Your task to perform on an android device: Search for alienware aurora on amazon, select the first entry, add it to the cart, then select checkout. Image 0: 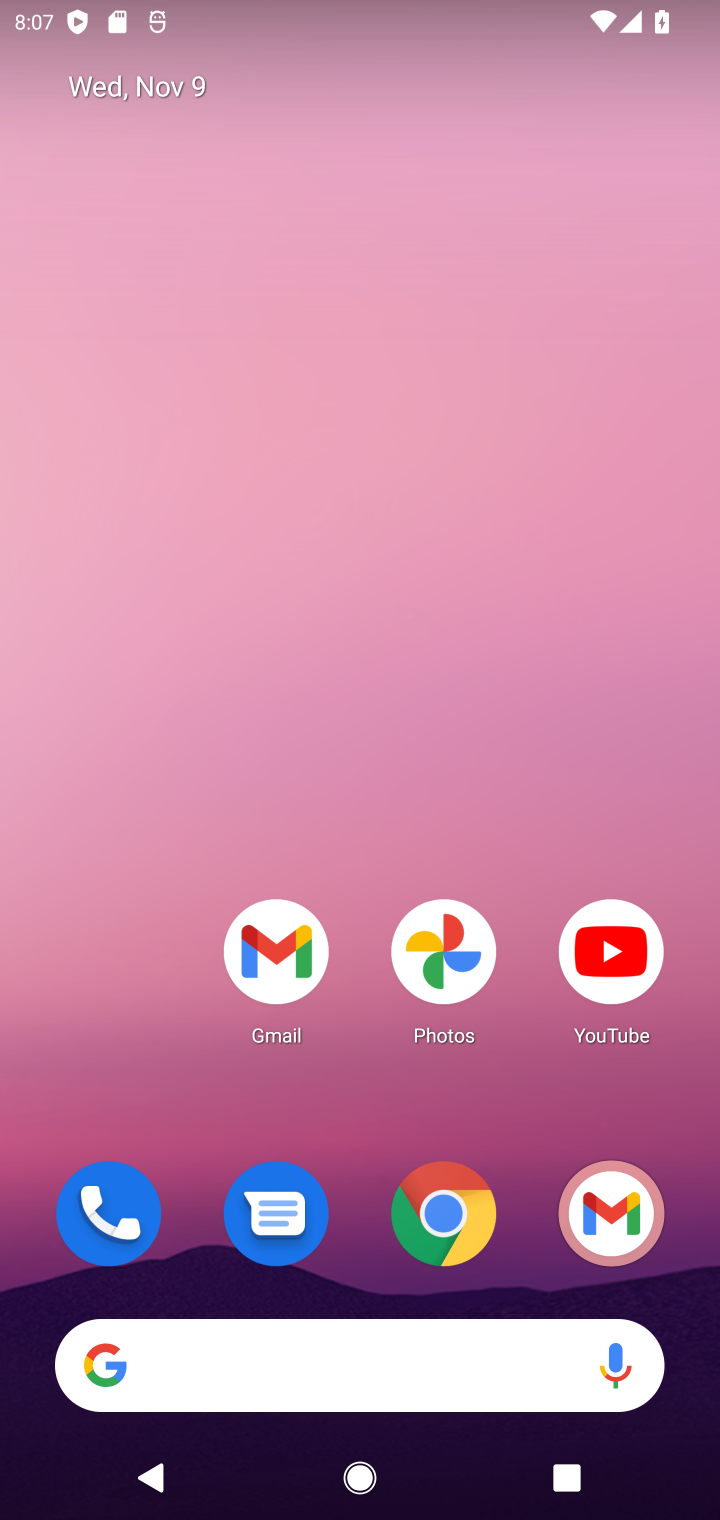
Step 0: click (462, 1218)
Your task to perform on an android device: Search for alienware aurora on amazon, select the first entry, add it to the cart, then select checkout. Image 1: 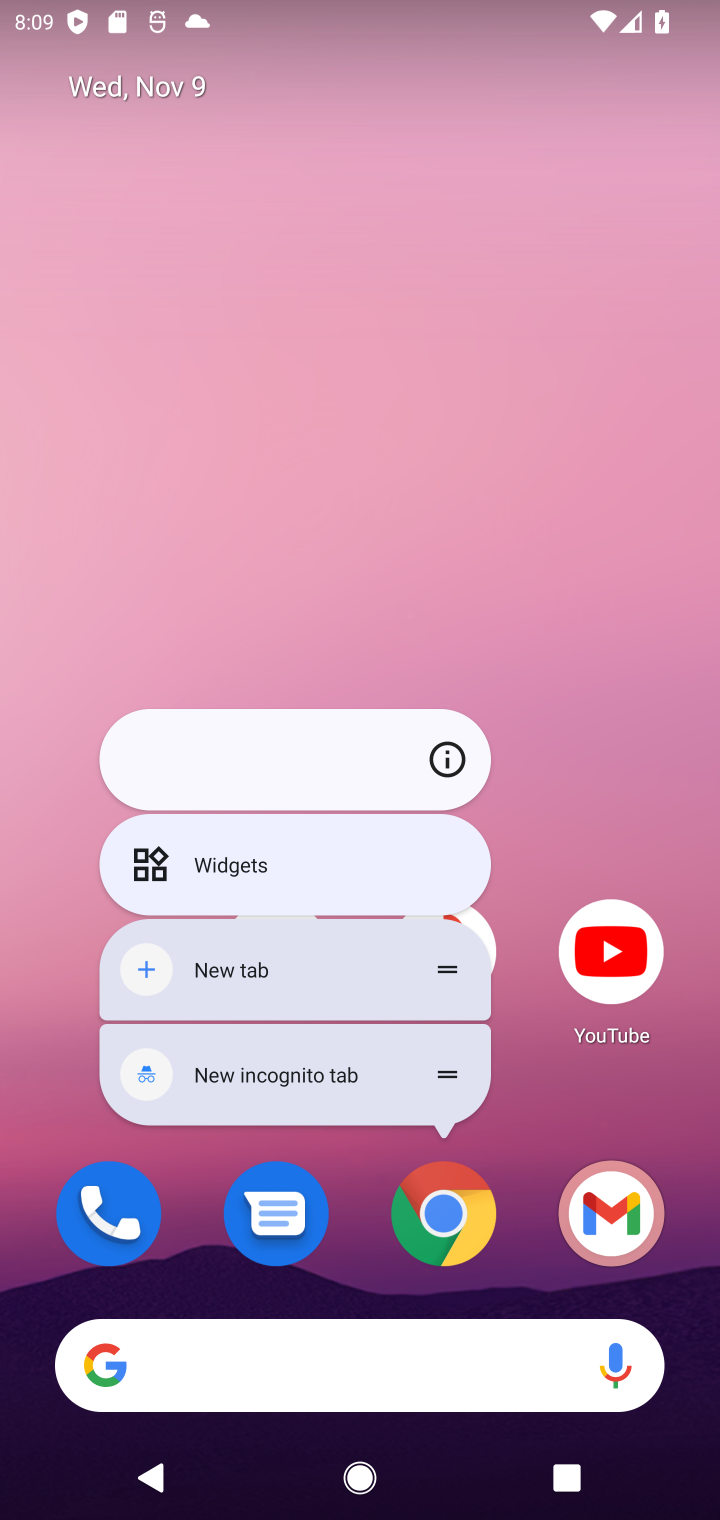
Step 1: click (455, 1258)
Your task to perform on an android device: Search for alienware aurora on amazon, select the first entry, add it to the cart, then select checkout. Image 2: 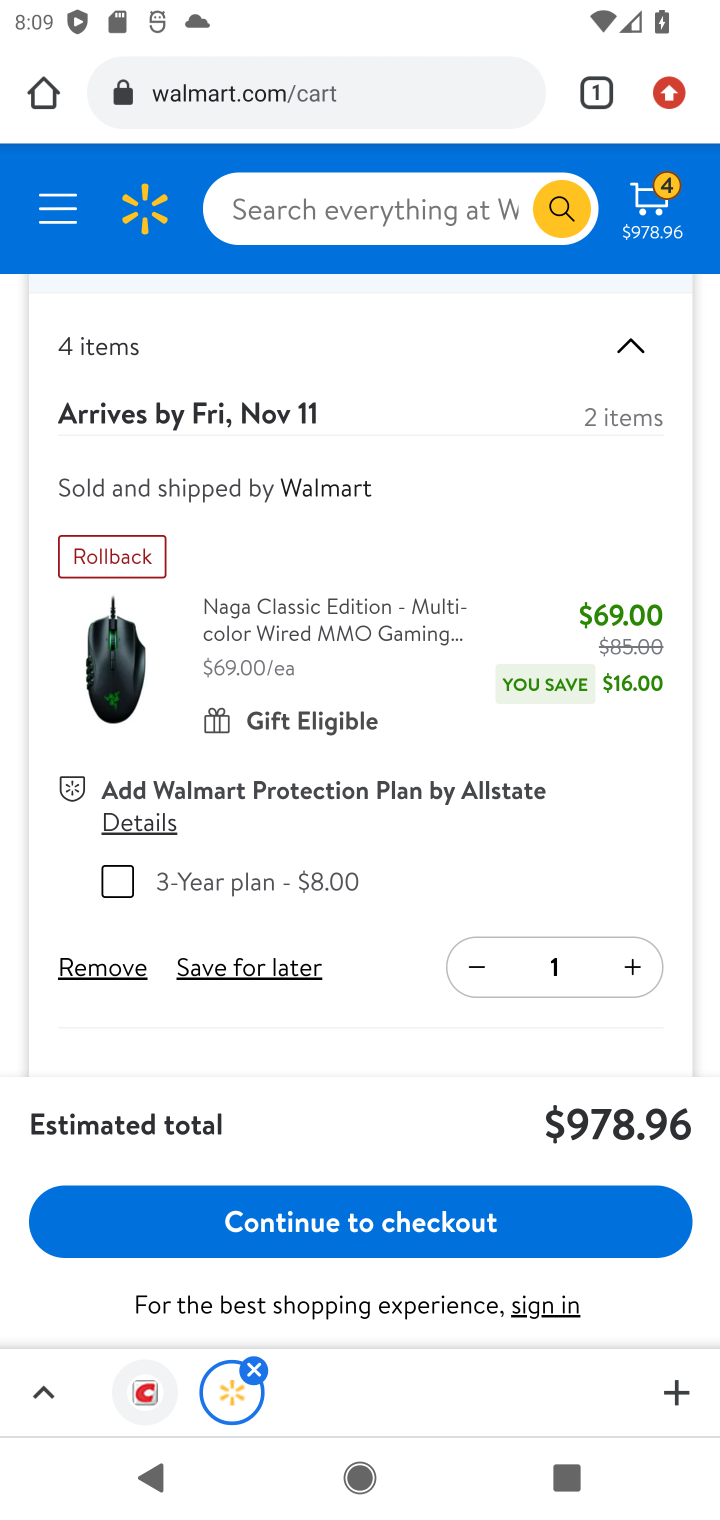
Step 2: click (276, 86)
Your task to perform on an android device: Search for alienware aurora on amazon, select the first entry, add it to the cart, then select checkout. Image 3: 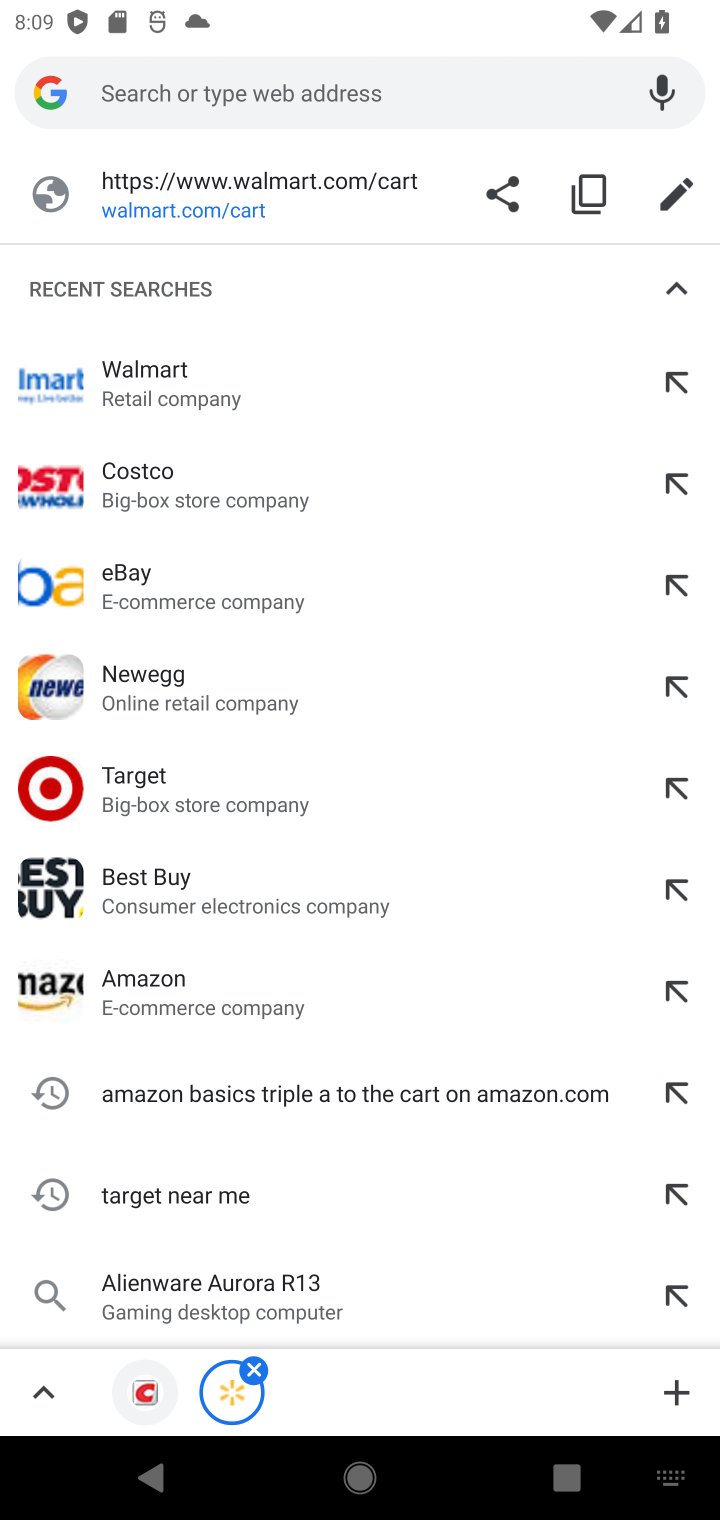
Step 3: click (176, 989)
Your task to perform on an android device: Search for alienware aurora on amazon, select the first entry, add it to the cart, then select checkout. Image 4: 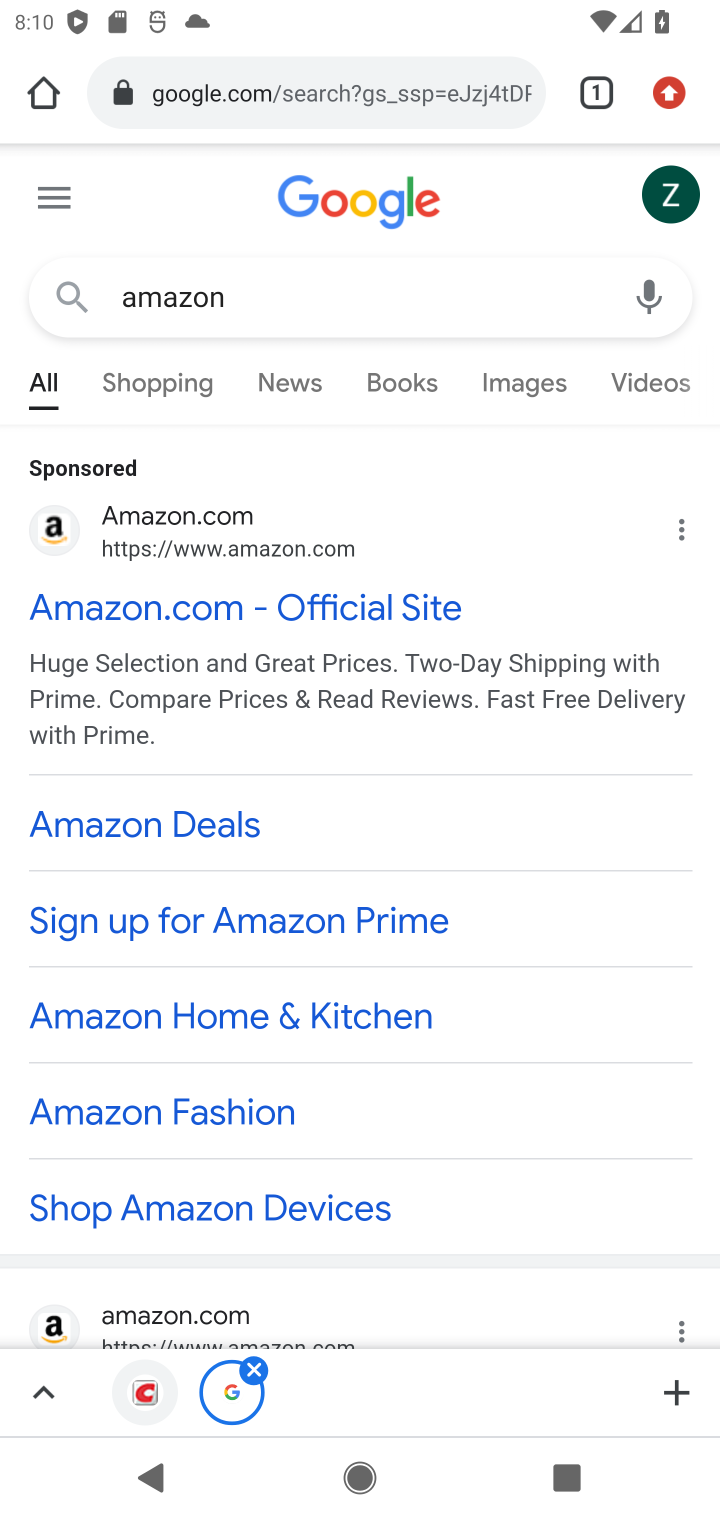
Step 4: click (110, 605)
Your task to perform on an android device: Search for alienware aurora on amazon, select the first entry, add it to the cart, then select checkout. Image 5: 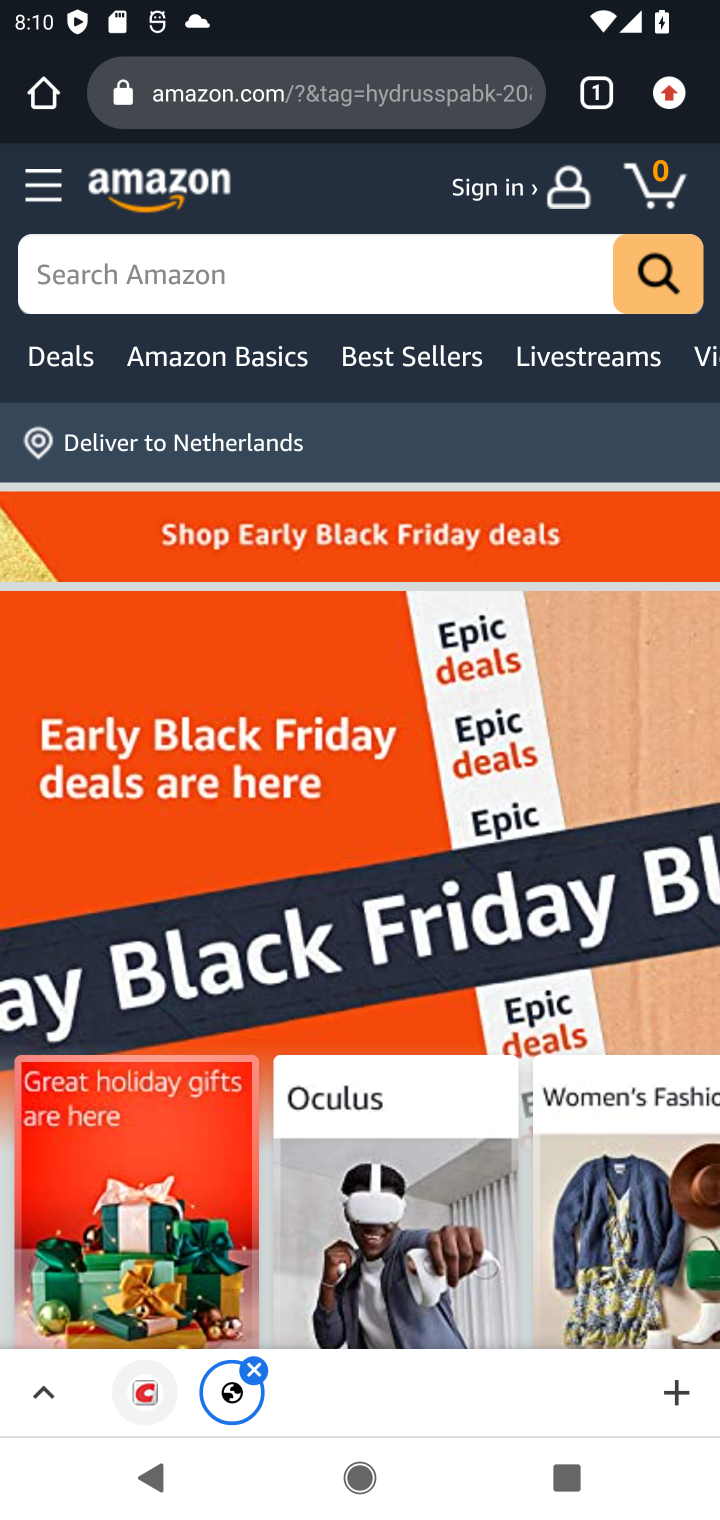
Step 5: click (153, 265)
Your task to perform on an android device: Search for alienware aurora on amazon, select the first entry, add it to the cart, then select checkout. Image 6: 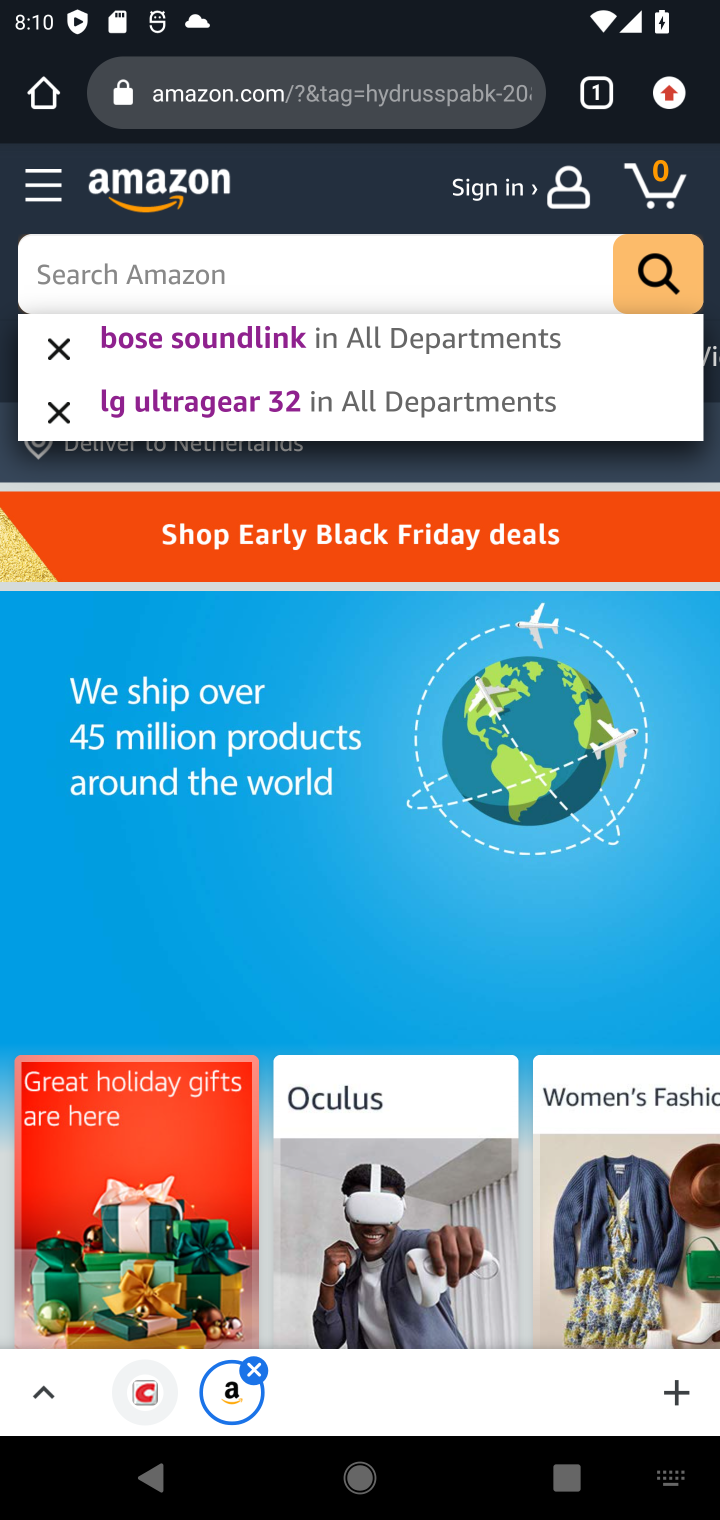
Step 6: type "alienware aurora"
Your task to perform on an android device: Search for alienware aurora on amazon, select the first entry, add it to the cart, then select checkout. Image 7: 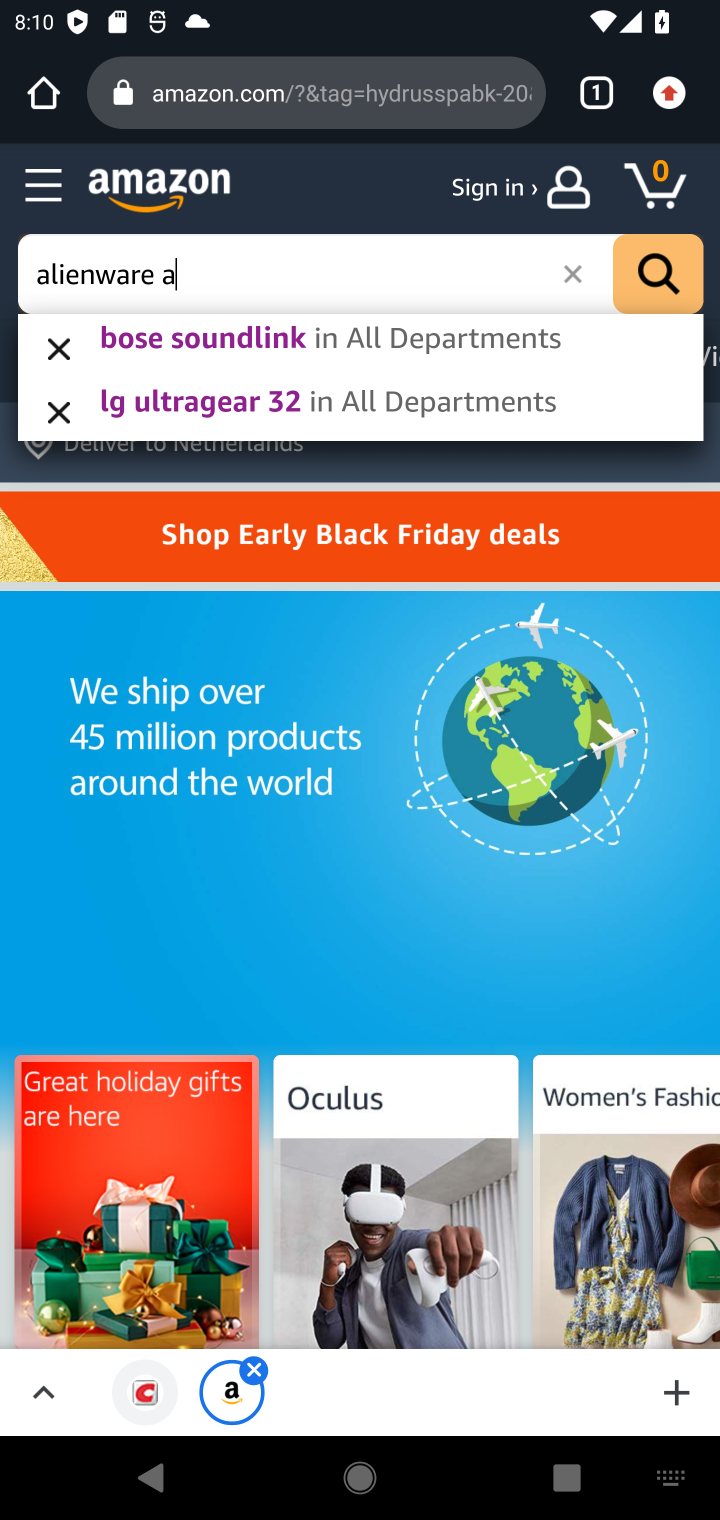
Step 7: type ""
Your task to perform on an android device: Search for alienware aurora on amazon, select the first entry, add it to the cart, then select checkout. Image 8: 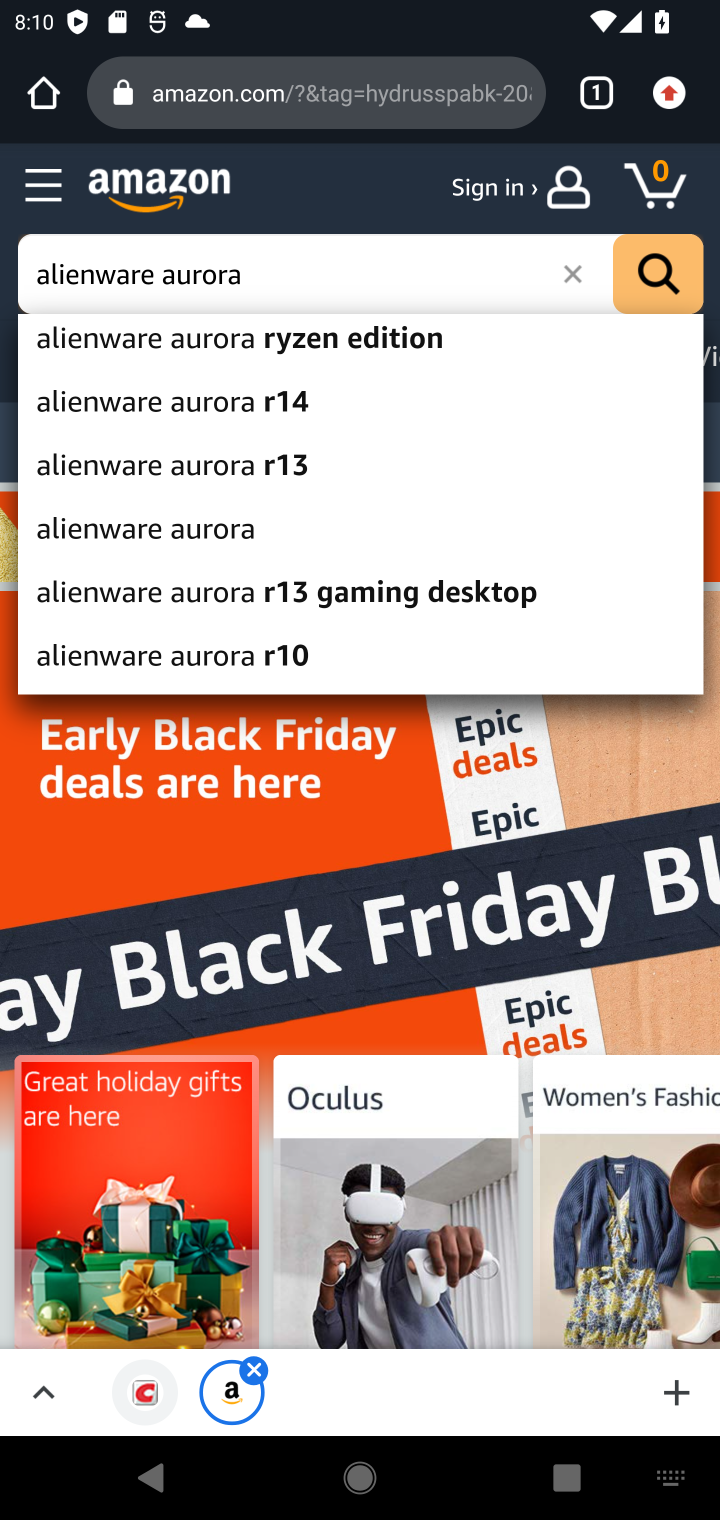
Step 8: click (203, 400)
Your task to perform on an android device: Search for alienware aurora on amazon, select the first entry, add it to the cart, then select checkout. Image 9: 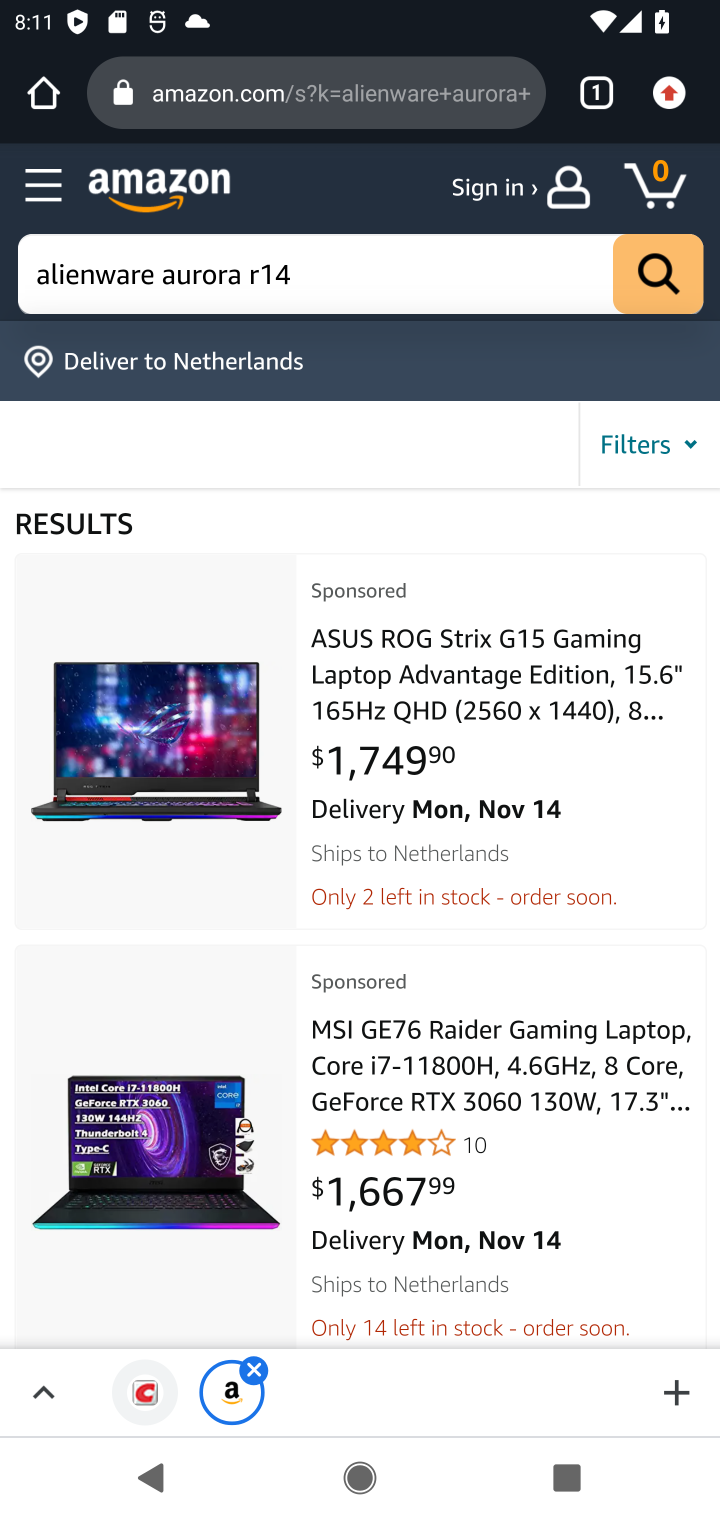
Step 9: click (406, 641)
Your task to perform on an android device: Search for alienware aurora on amazon, select the first entry, add it to the cart, then select checkout. Image 10: 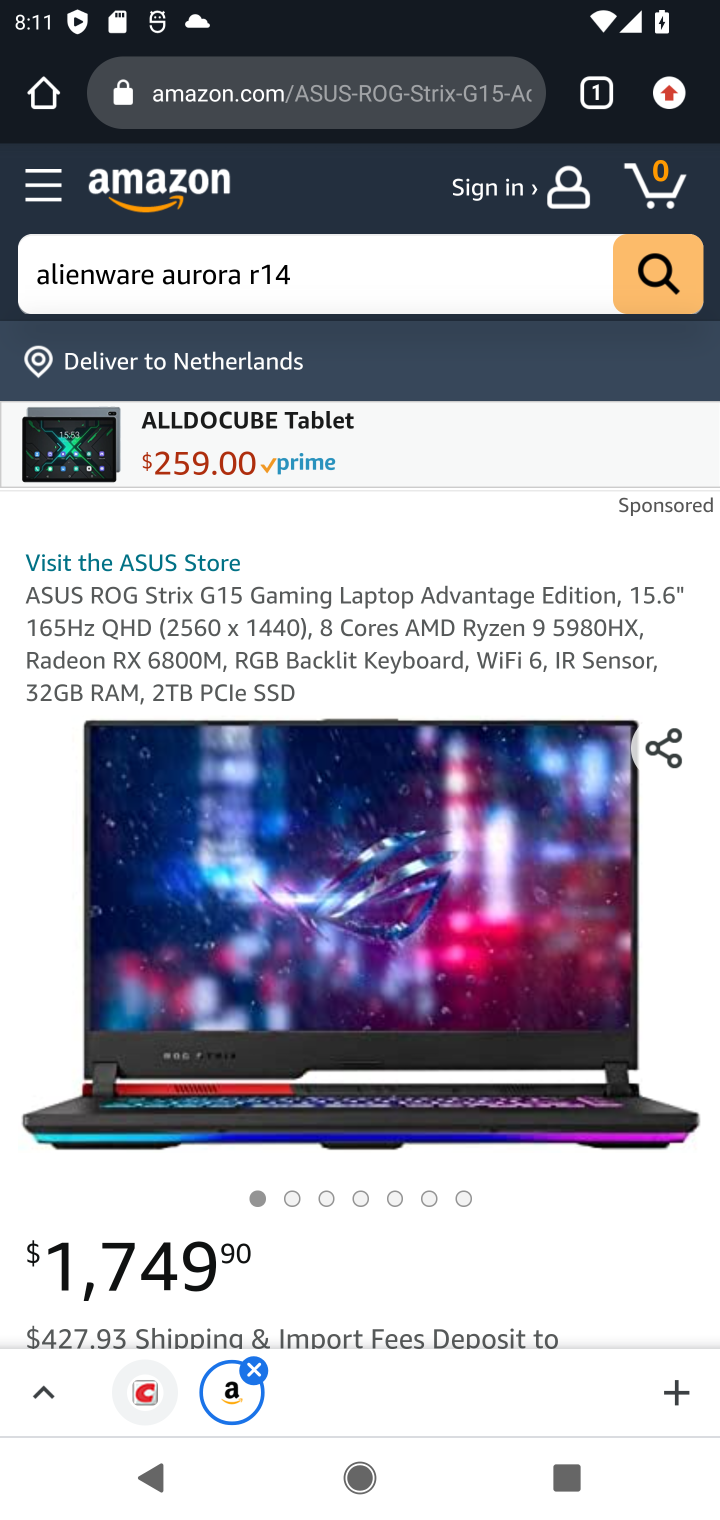
Step 10: drag from (261, 1048) to (162, 451)
Your task to perform on an android device: Search for alienware aurora on amazon, select the first entry, add it to the cart, then select checkout. Image 11: 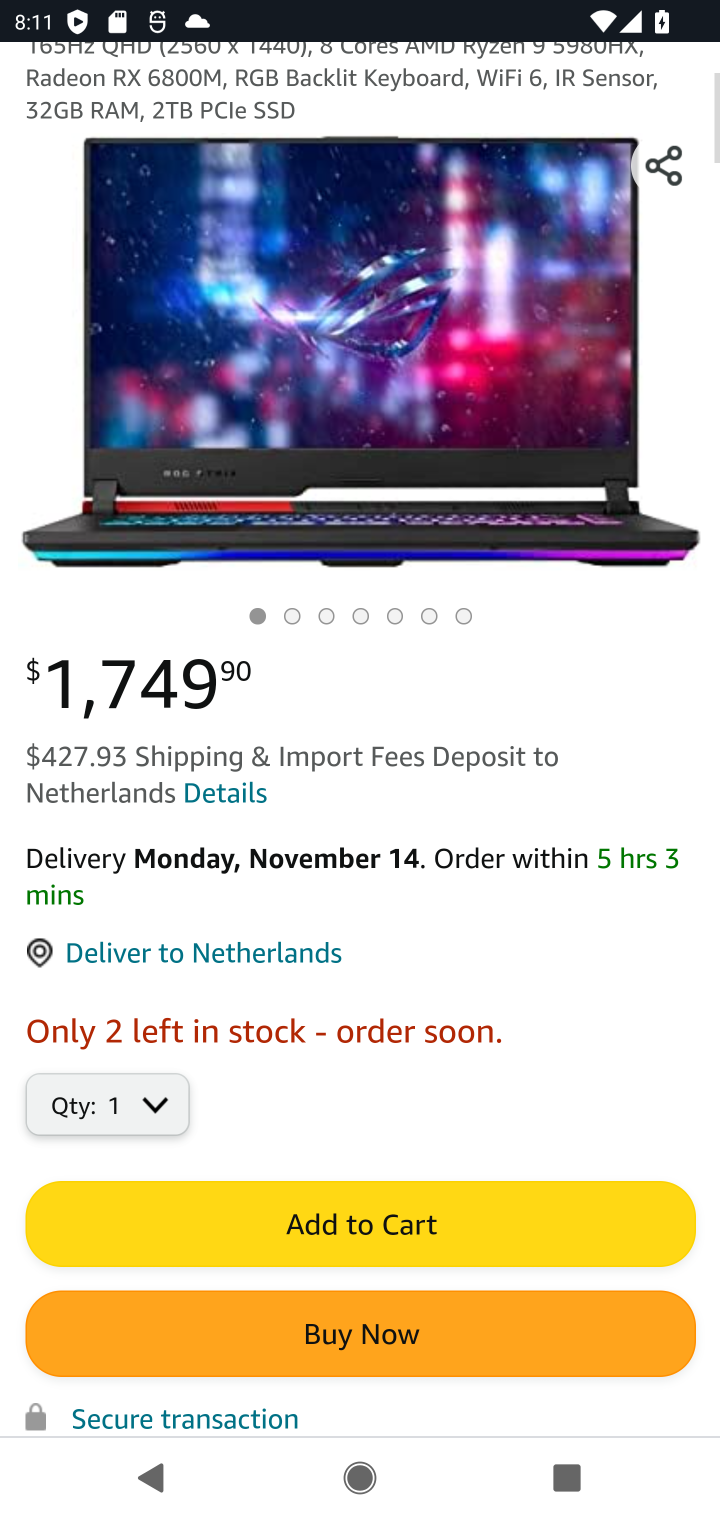
Step 11: drag from (231, 958) to (221, 551)
Your task to perform on an android device: Search for alienware aurora on amazon, select the first entry, add it to the cart, then select checkout. Image 12: 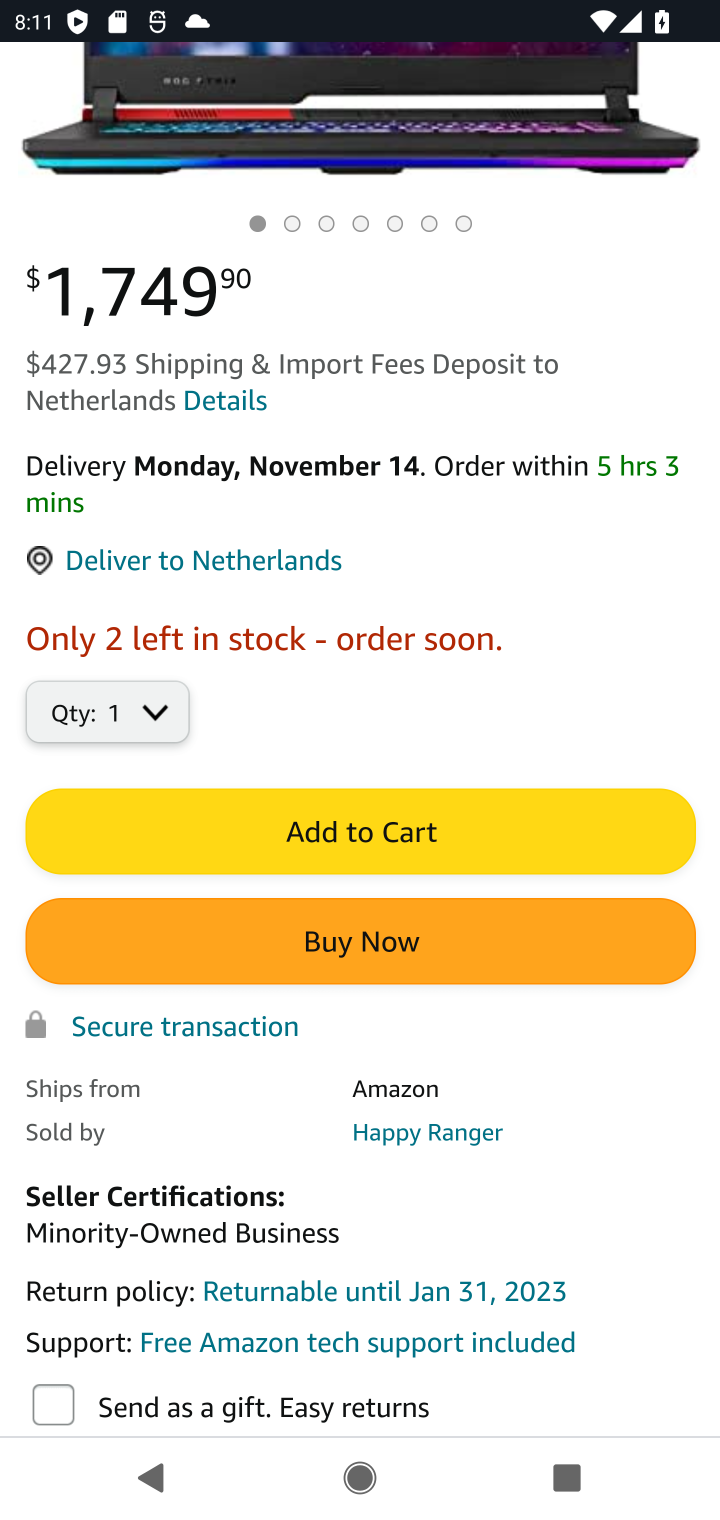
Step 12: click (359, 825)
Your task to perform on an android device: Search for alienware aurora on amazon, select the first entry, add it to the cart, then select checkout. Image 13: 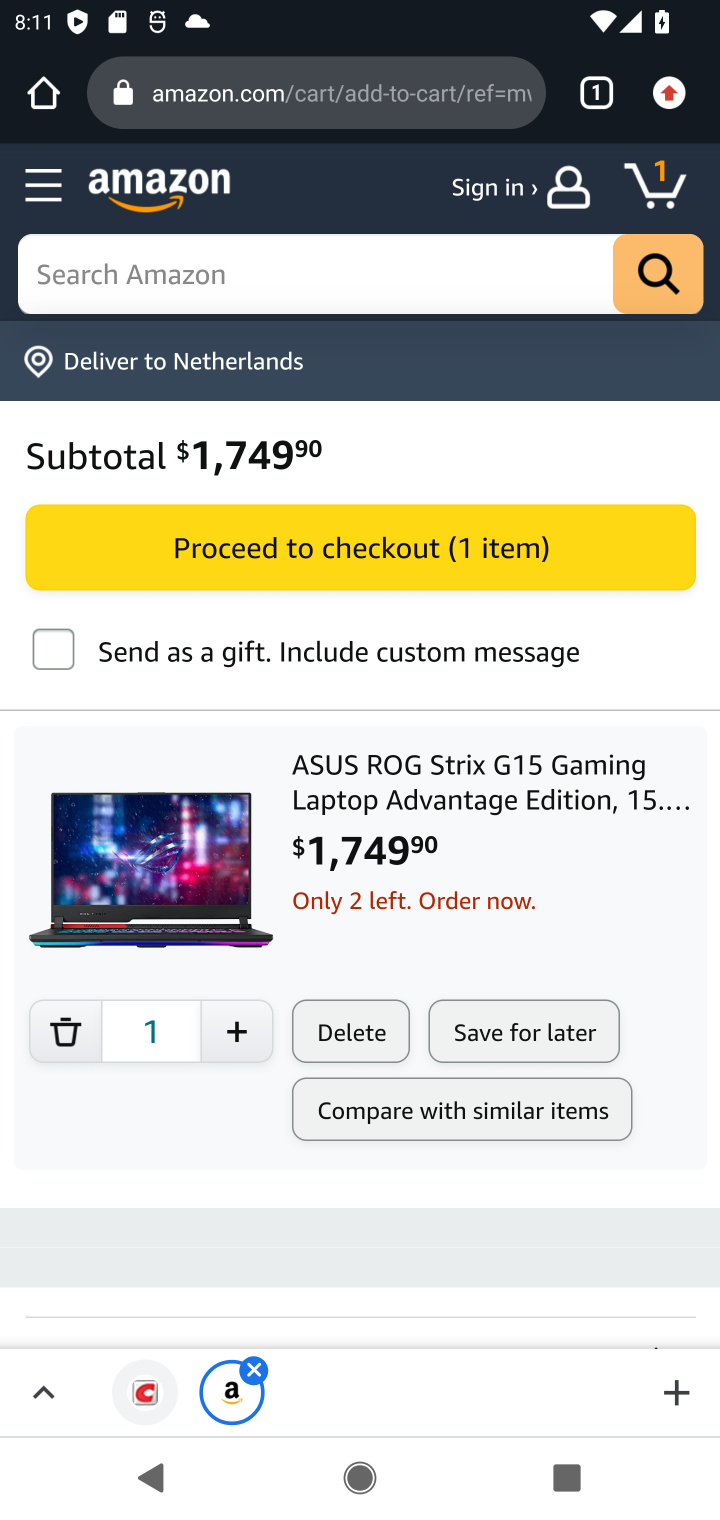
Step 13: click (344, 562)
Your task to perform on an android device: Search for alienware aurora on amazon, select the first entry, add it to the cart, then select checkout. Image 14: 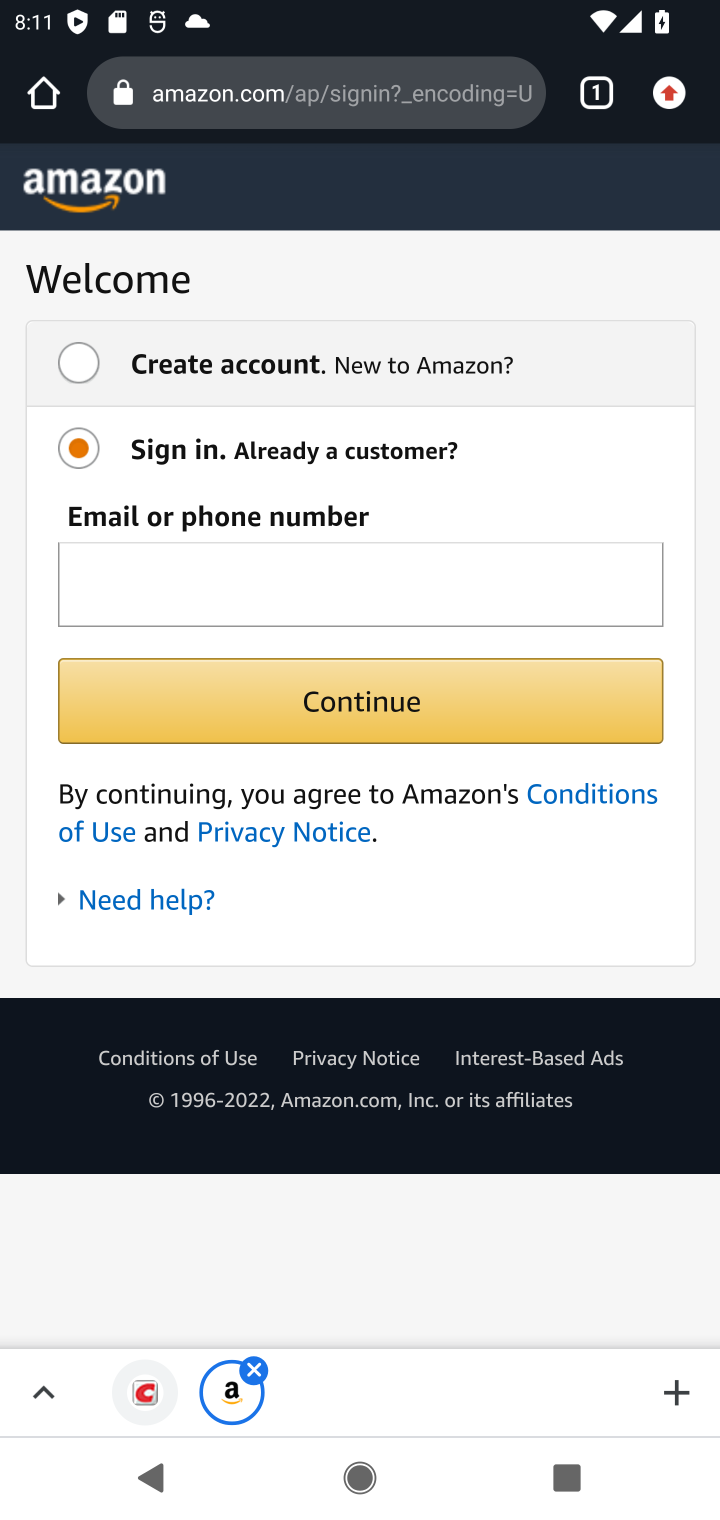
Step 14: task complete